Your task to perform on an android device: Toggle the flashlight Image 0: 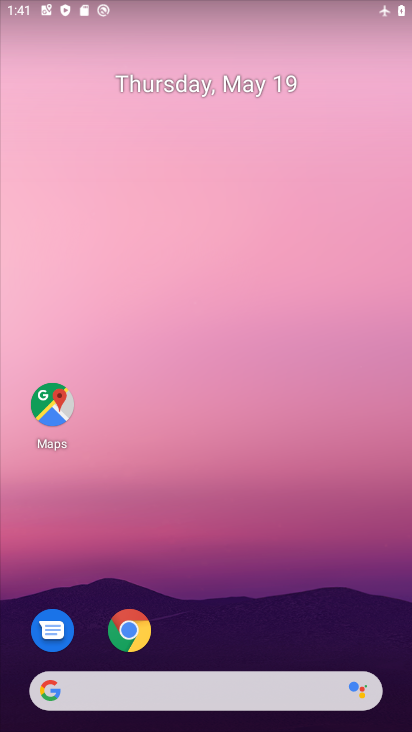
Step 0: drag from (201, 659) to (155, 76)
Your task to perform on an android device: Toggle the flashlight Image 1: 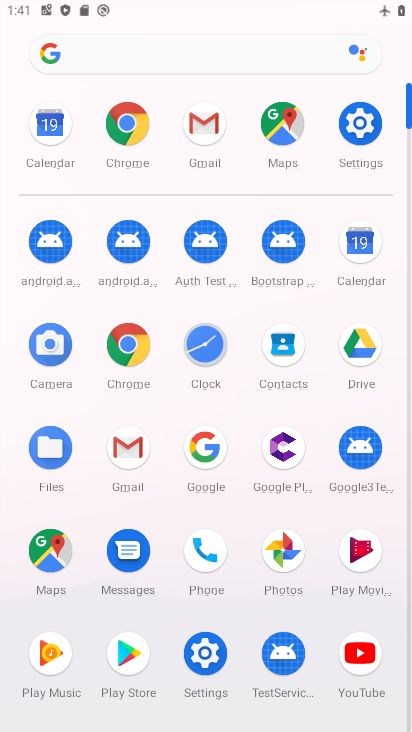
Step 1: click (208, 654)
Your task to perform on an android device: Toggle the flashlight Image 2: 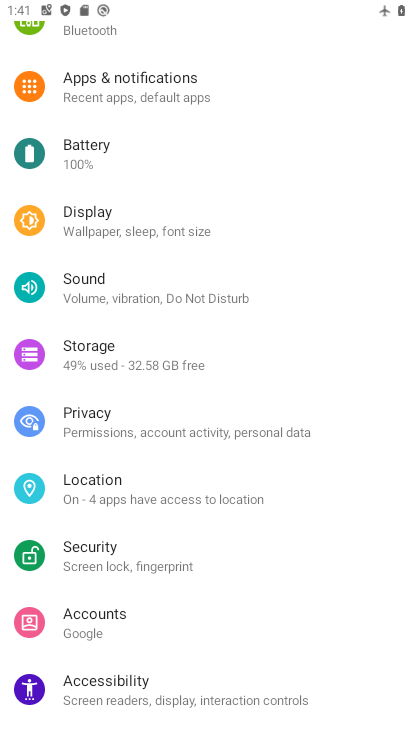
Step 2: task complete